Your task to perform on an android device: Go to CNN.com Image 0: 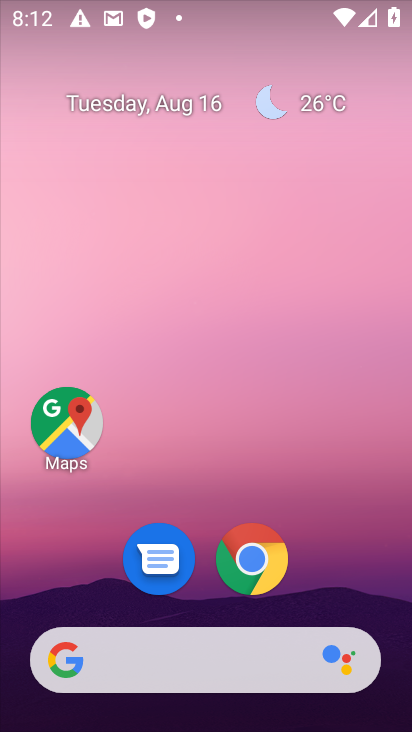
Step 0: drag from (301, 622) to (231, 107)
Your task to perform on an android device: Go to CNN.com Image 1: 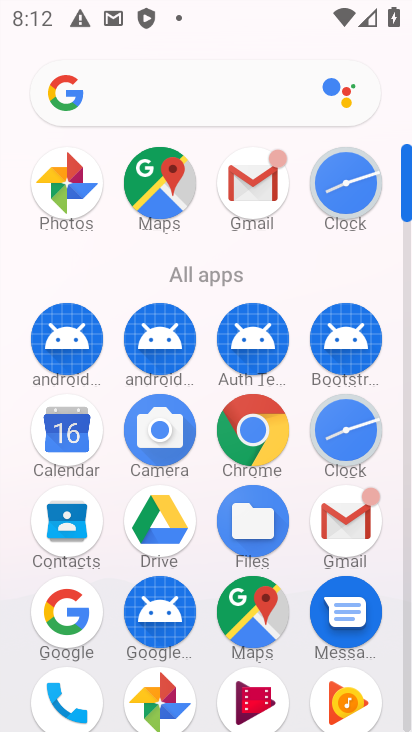
Step 1: click (262, 437)
Your task to perform on an android device: Go to CNN.com Image 2: 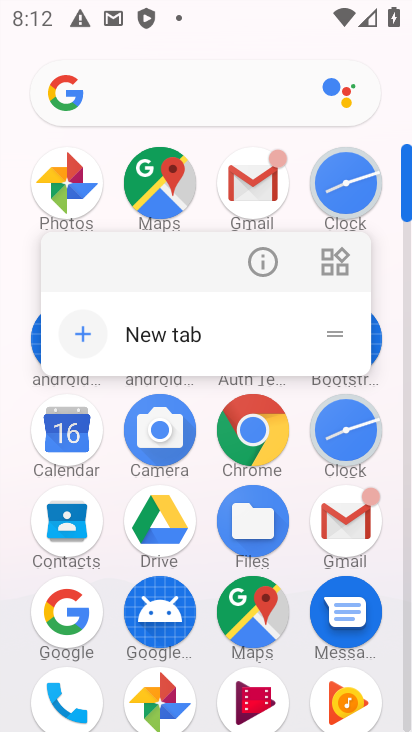
Step 2: click (257, 438)
Your task to perform on an android device: Go to CNN.com Image 3: 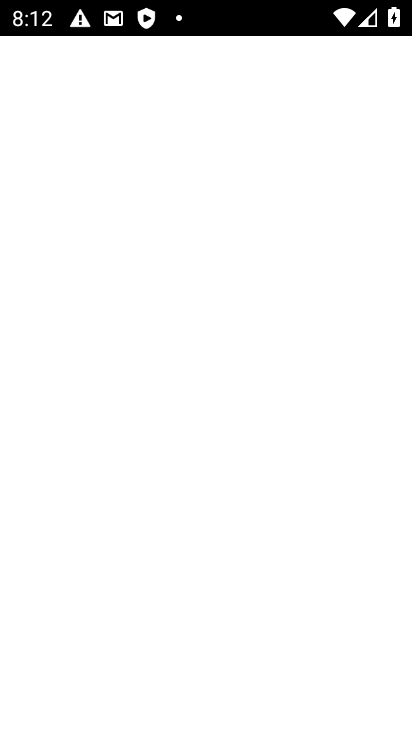
Step 3: task complete